Your task to perform on an android device: Go to notification settings Image 0: 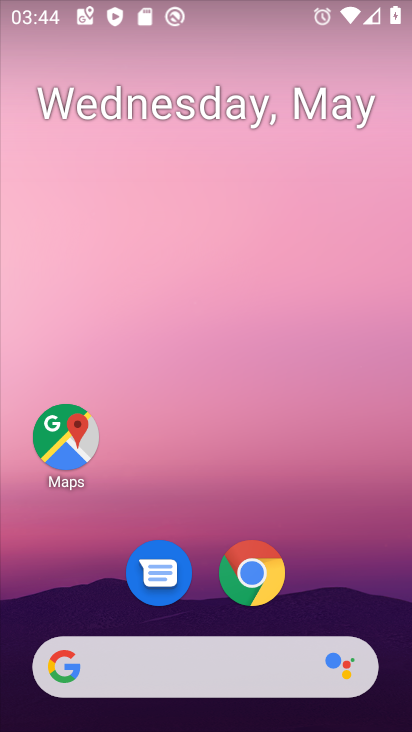
Step 0: drag from (211, 725) to (212, 86)
Your task to perform on an android device: Go to notification settings Image 1: 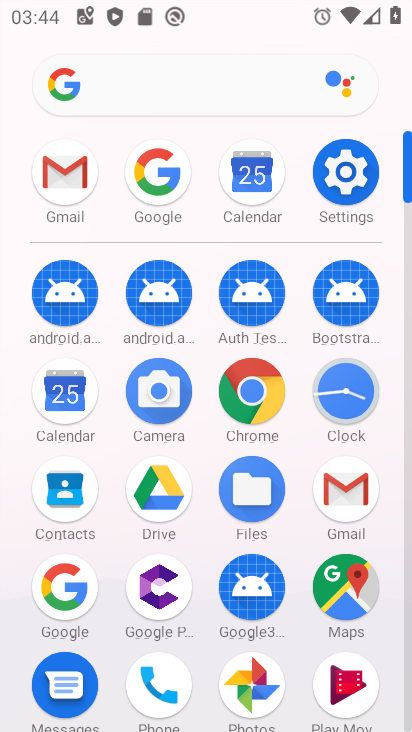
Step 1: click (351, 171)
Your task to perform on an android device: Go to notification settings Image 2: 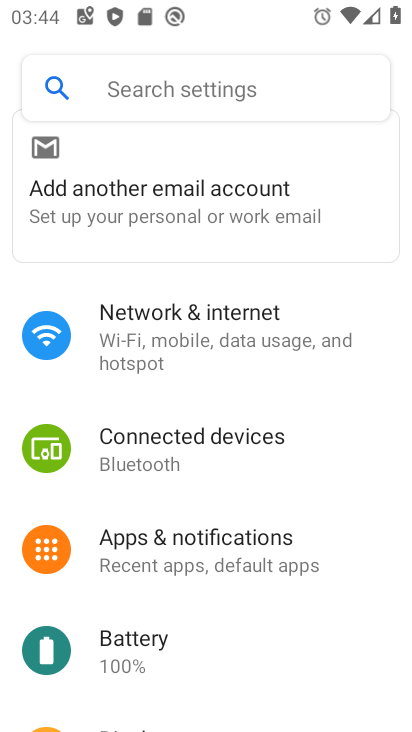
Step 2: click (154, 551)
Your task to perform on an android device: Go to notification settings Image 3: 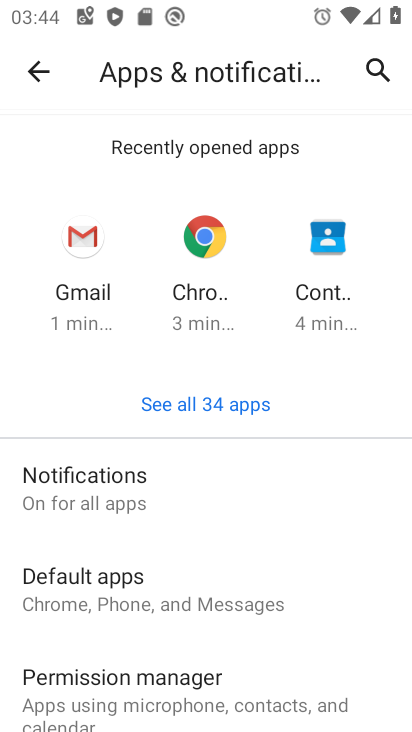
Step 3: click (90, 480)
Your task to perform on an android device: Go to notification settings Image 4: 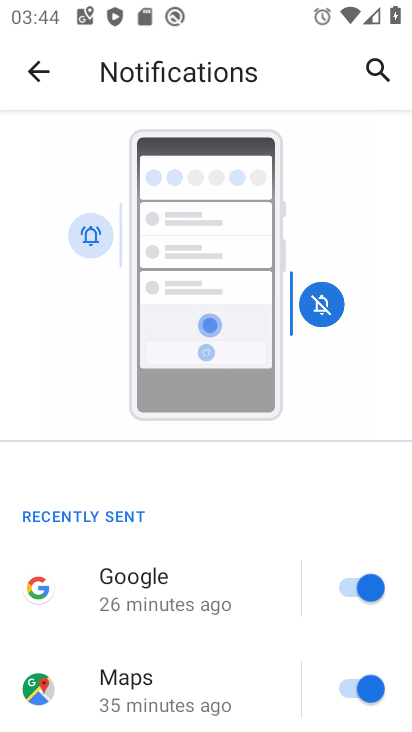
Step 4: task complete